Your task to perform on an android device: Open Google Chrome and click the shortcut for Amazon.com Image 0: 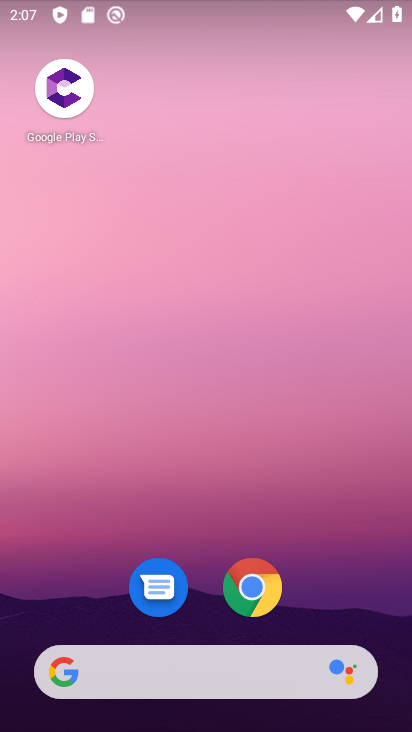
Step 0: click (265, 597)
Your task to perform on an android device: Open Google Chrome and click the shortcut for Amazon.com Image 1: 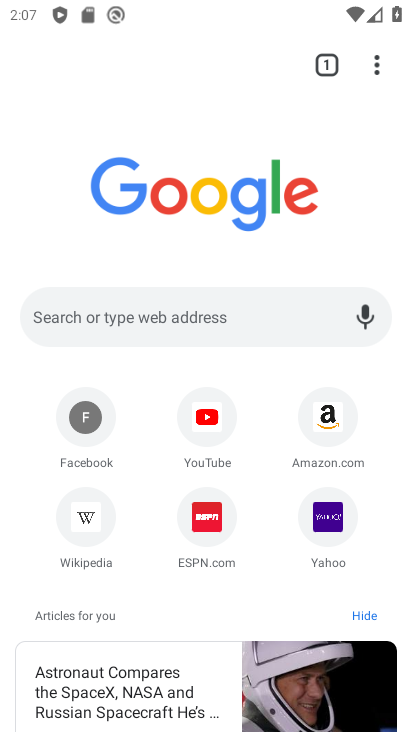
Step 1: click (320, 409)
Your task to perform on an android device: Open Google Chrome and click the shortcut for Amazon.com Image 2: 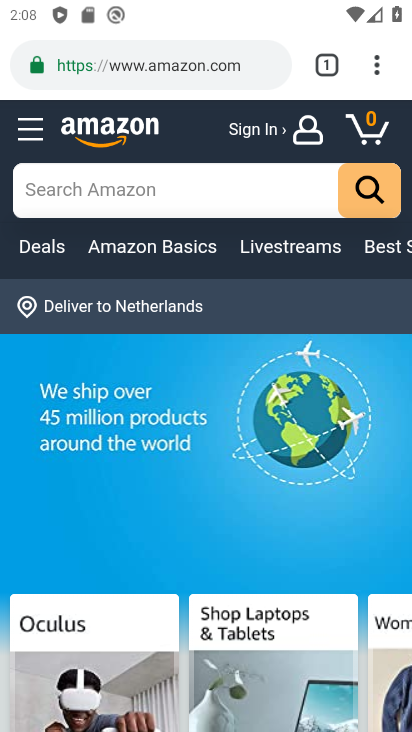
Step 2: task complete